Your task to perform on an android device: see sites visited before in the chrome app Image 0: 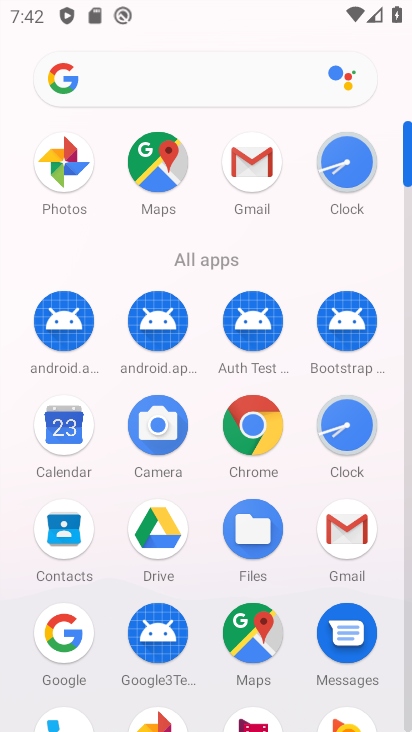
Step 0: click (256, 427)
Your task to perform on an android device: see sites visited before in the chrome app Image 1: 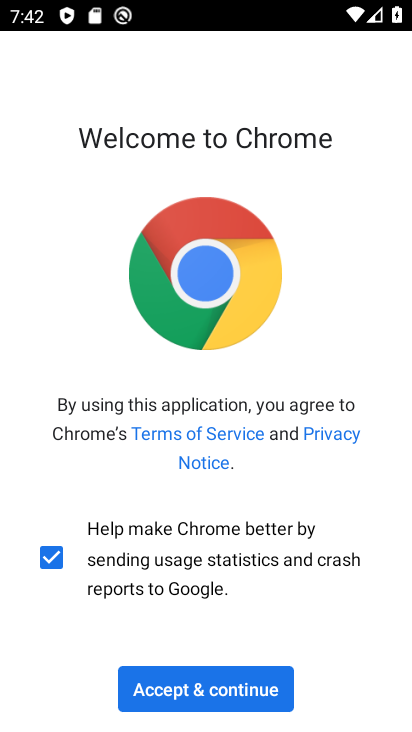
Step 1: click (232, 686)
Your task to perform on an android device: see sites visited before in the chrome app Image 2: 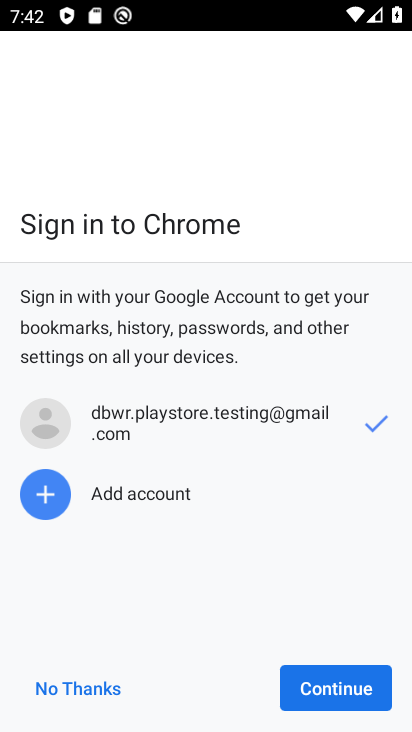
Step 2: click (307, 688)
Your task to perform on an android device: see sites visited before in the chrome app Image 3: 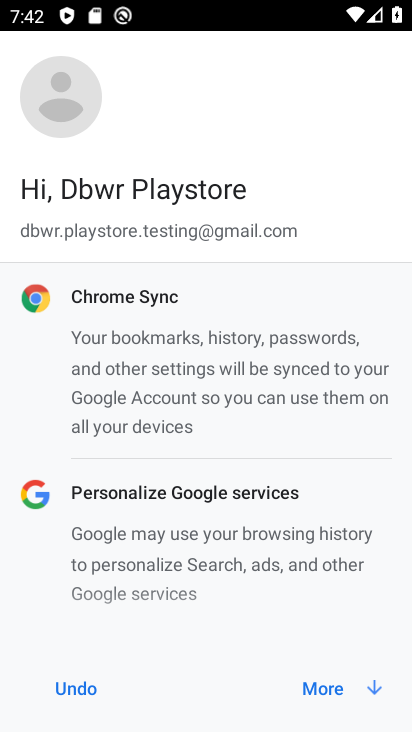
Step 3: click (318, 688)
Your task to perform on an android device: see sites visited before in the chrome app Image 4: 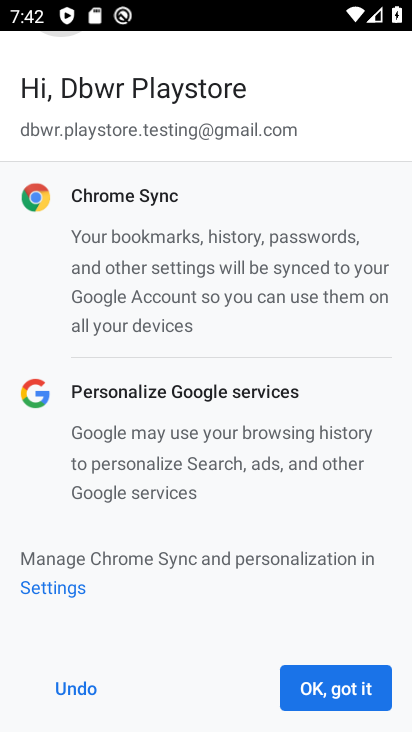
Step 4: click (343, 692)
Your task to perform on an android device: see sites visited before in the chrome app Image 5: 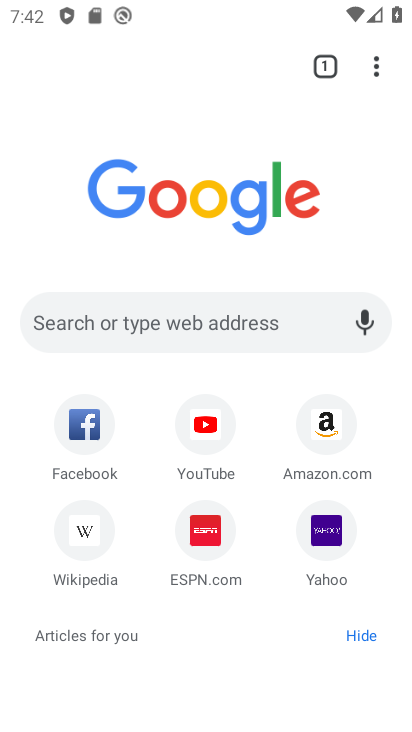
Step 5: click (373, 68)
Your task to perform on an android device: see sites visited before in the chrome app Image 6: 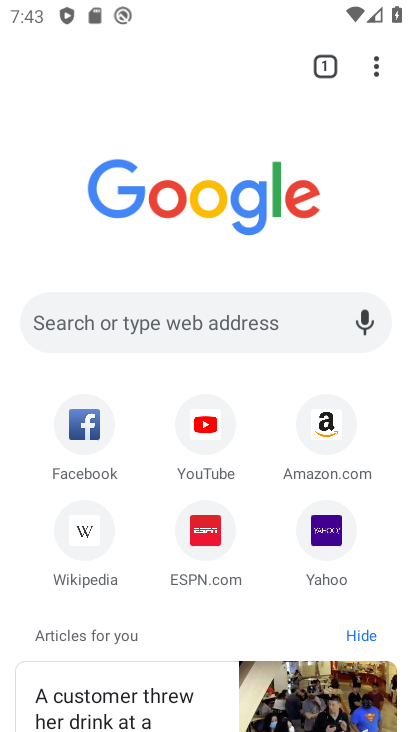
Step 6: click (373, 65)
Your task to perform on an android device: see sites visited before in the chrome app Image 7: 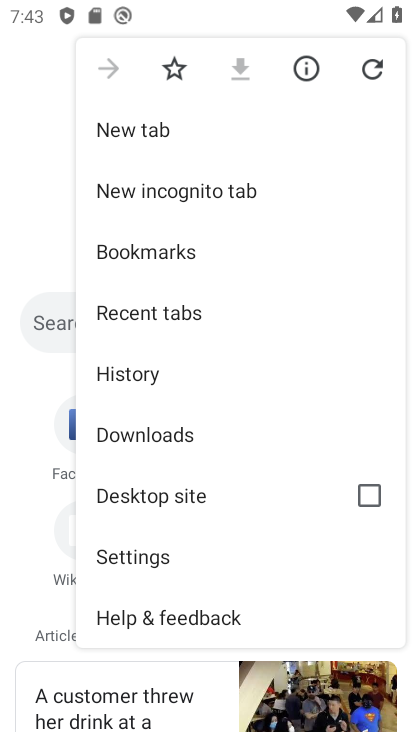
Step 7: click (164, 314)
Your task to perform on an android device: see sites visited before in the chrome app Image 8: 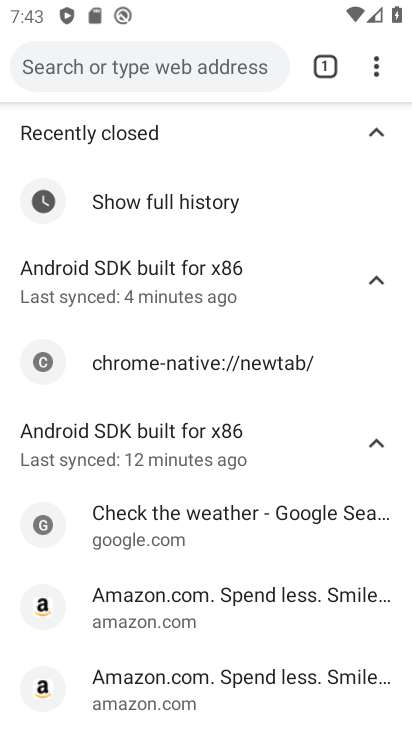
Step 8: task complete